Your task to perform on an android device: What is the recent news? Image 0: 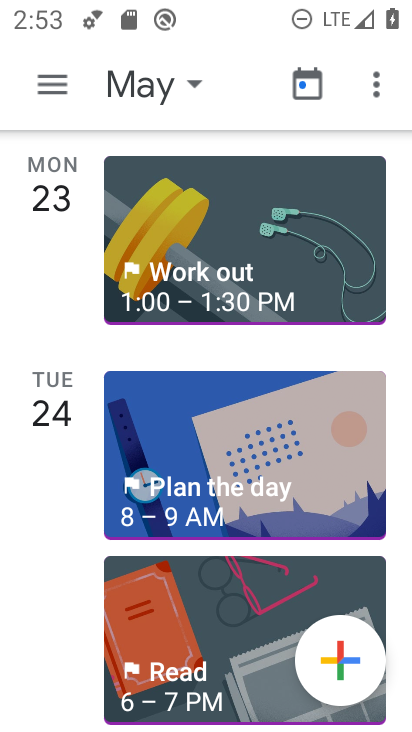
Step 0: press home button
Your task to perform on an android device: What is the recent news? Image 1: 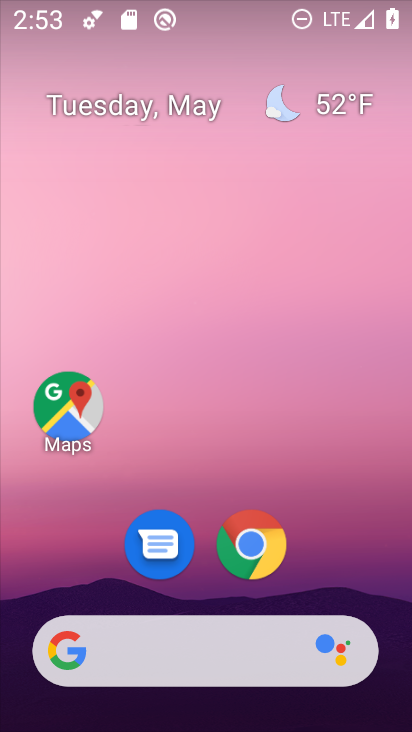
Step 1: drag from (96, 245) to (382, 337)
Your task to perform on an android device: What is the recent news? Image 2: 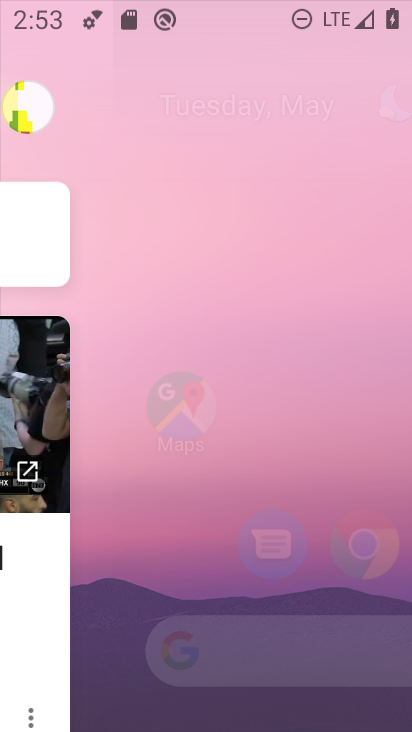
Step 2: drag from (94, 436) to (397, 464)
Your task to perform on an android device: What is the recent news? Image 3: 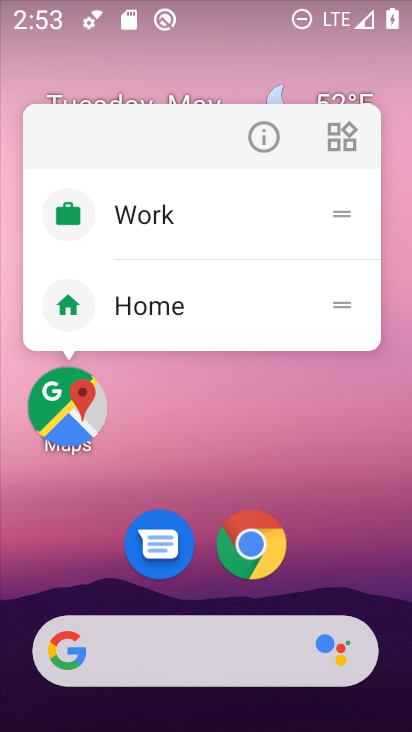
Step 3: click (292, 464)
Your task to perform on an android device: What is the recent news? Image 4: 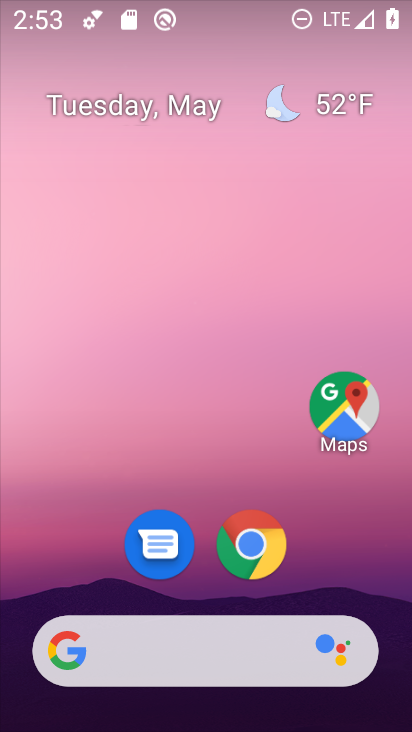
Step 4: task complete